Your task to perform on an android device: turn on notifications settings in the gmail app Image 0: 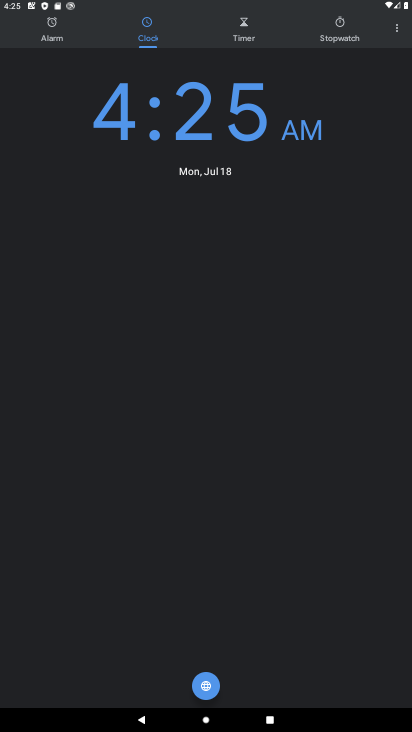
Step 0: press home button
Your task to perform on an android device: turn on notifications settings in the gmail app Image 1: 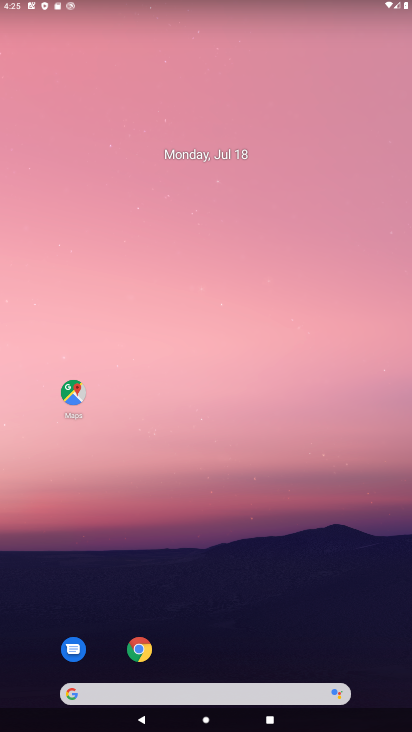
Step 1: drag from (206, 671) to (239, 6)
Your task to perform on an android device: turn on notifications settings in the gmail app Image 2: 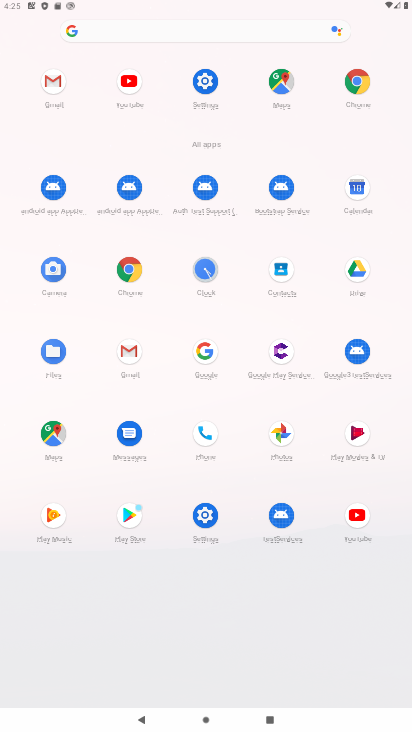
Step 2: click (209, 82)
Your task to perform on an android device: turn on notifications settings in the gmail app Image 3: 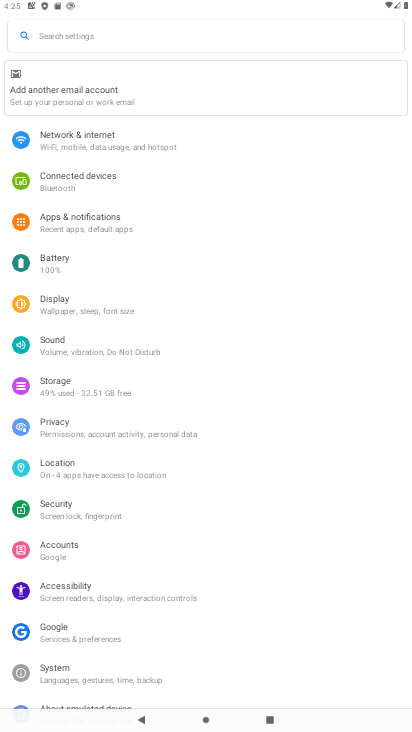
Step 3: click (81, 229)
Your task to perform on an android device: turn on notifications settings in the gmail app Image 4: 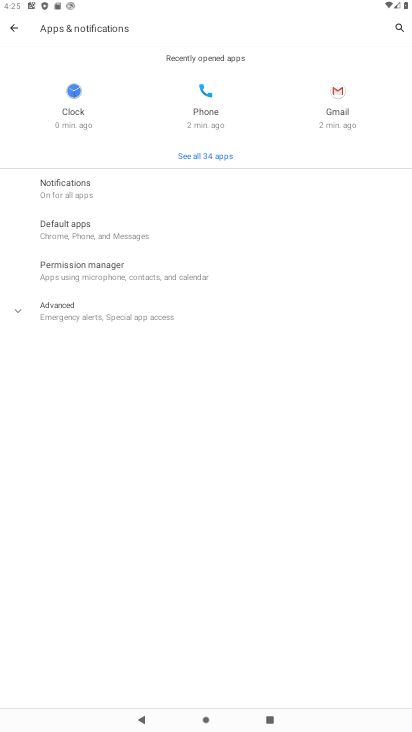
Step 4: click (95, 205)
Your task to perform on an android device: turn on notifications settings in the gmail app Image 5: 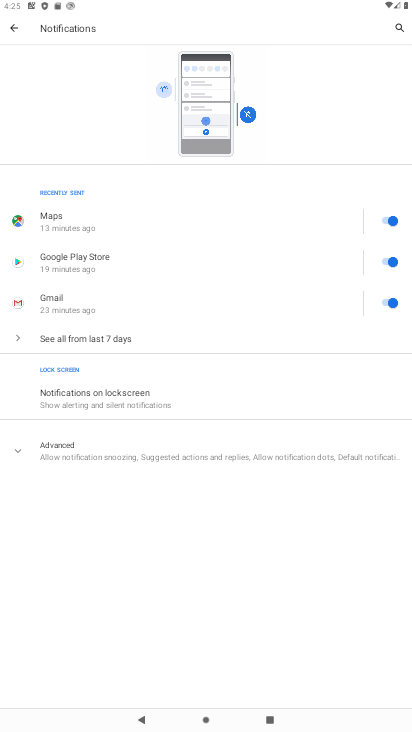
Step 5: click (20, 32)
Your task to perform on an android device: turn on notifications settings in the gmail app Image 6: 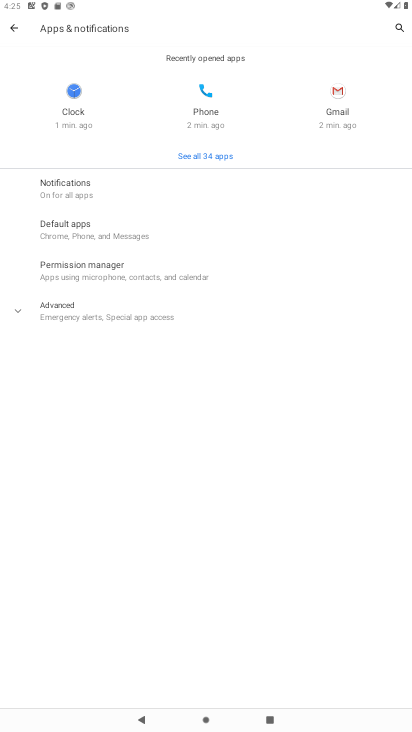
Step 6: click (345, 107)
Your task to perform on an android device: turn on notifications settings in the gmail app Image 7: 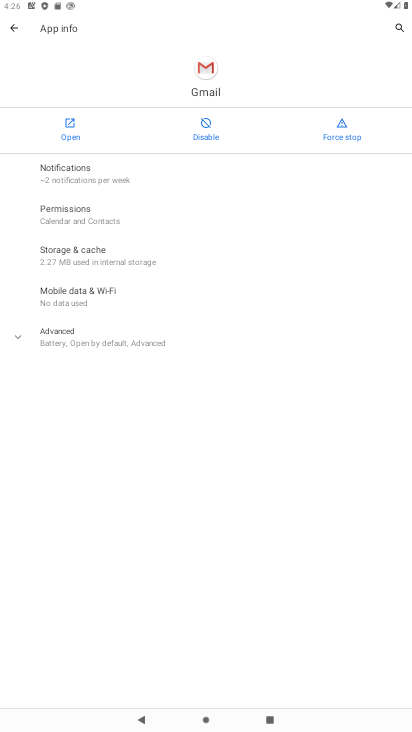
Step 7: click (121, 184)
Your task to perform on an android device: turn on notifications settings in the gmail app Image 8: 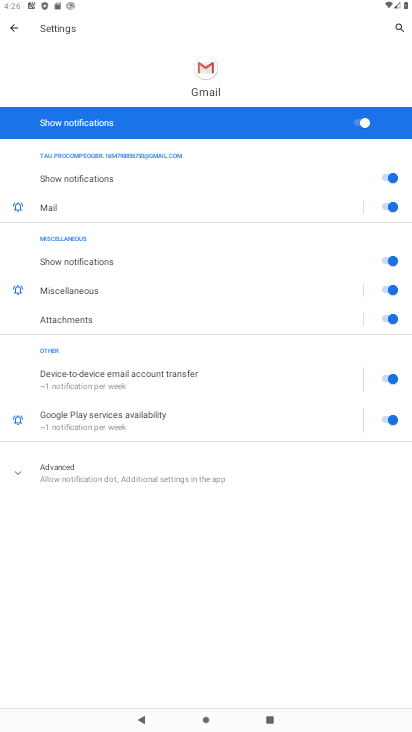
Step 8: task complete